Your task to perform on an android device: When is my next appointment? Image 0: 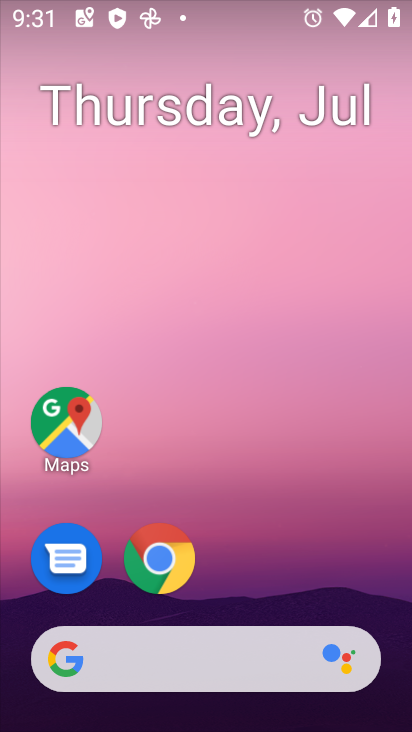
Step 0: drag from (360, 572) to (382, 74)
Your task to perform on an android device: When is my next appointment? Image 1: 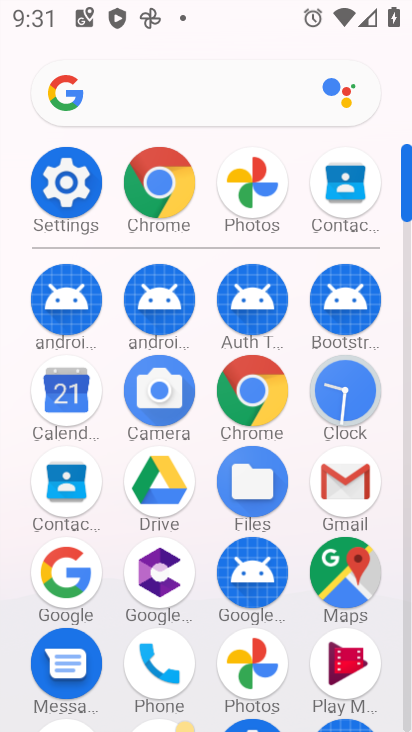
Step 1: click (77, 402)
Your task to perform on an android device: When is my next appointment? Image 2: 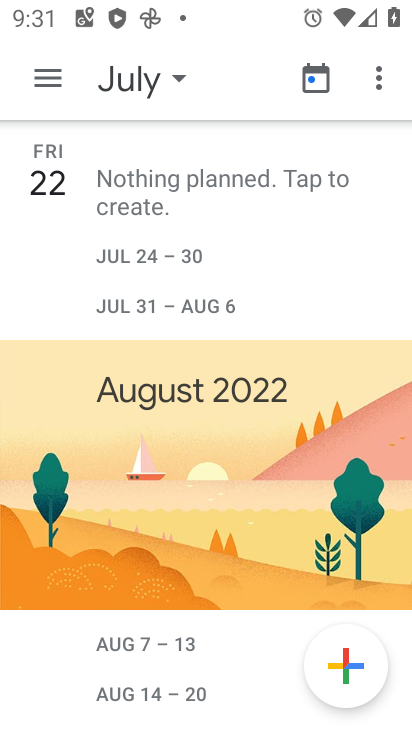
Step 2: task complete